Your task to perform on an android device: open chrome privacy settings Image 0: 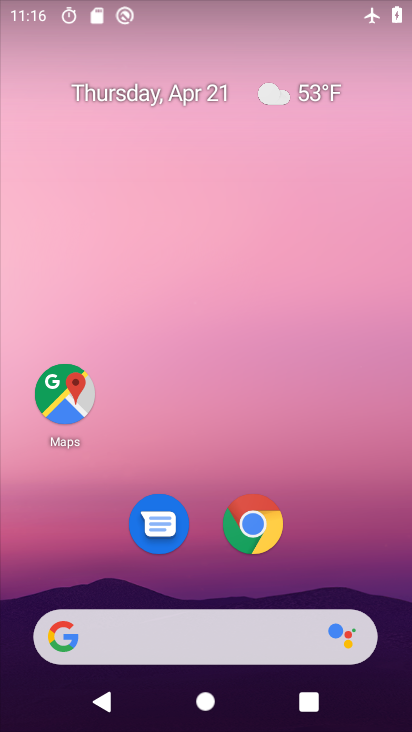
Step 0: click (258, 525)
Your task to perform on an android device: open chrome privacy settings Image 1: 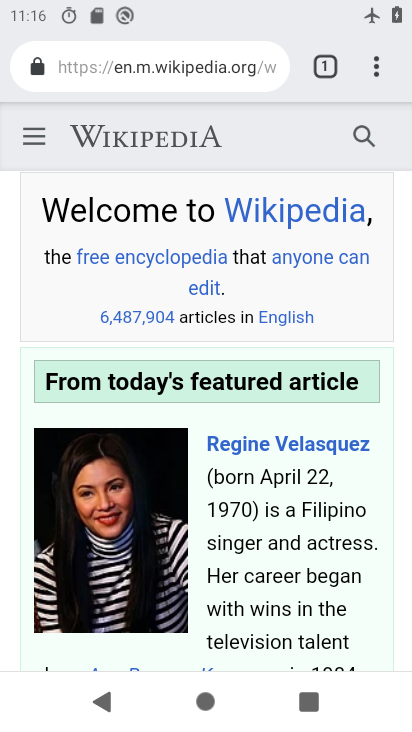
Step 1: drag from (380, 73) to (240, 536)
Your task to perform on an android device: open chrome privacy settings Image 2: 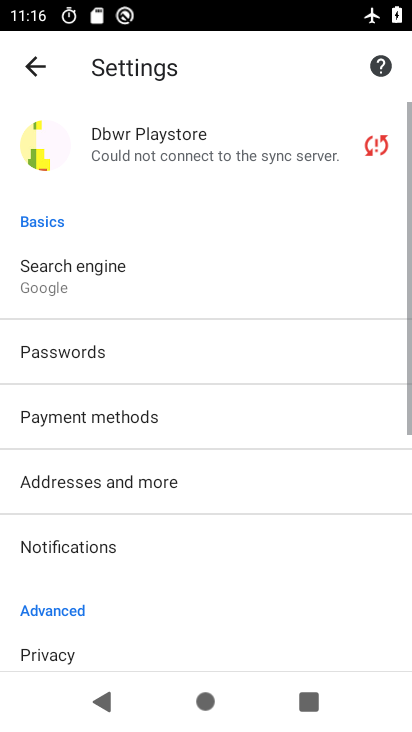
Step 2: drag from (229, 578) to (270, 384)
Your task to perform on an android device: open chrome privacy settings Image 3: 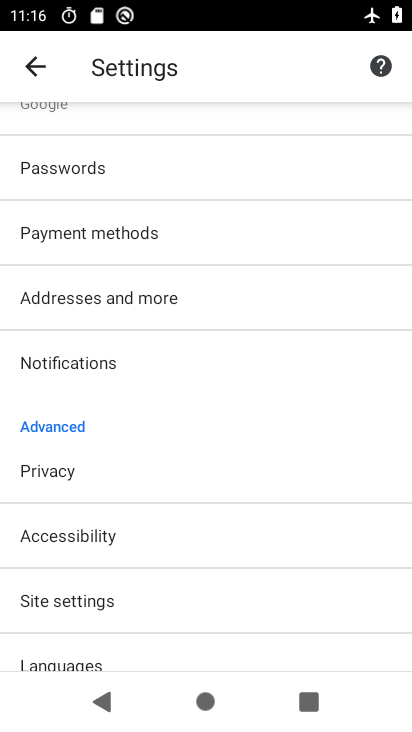
Step 3: click (216, 475)
Your task to perform on an android device: open chrome privacy settings Image 4: 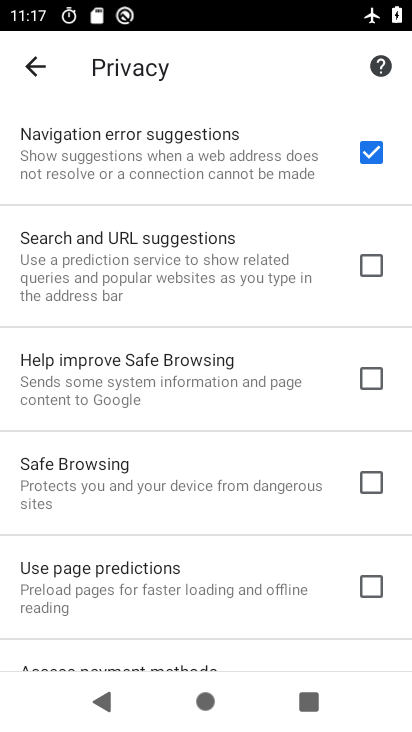
Step 4: task complete